Your task to perform on an android device: Open wifi settings Image 0: 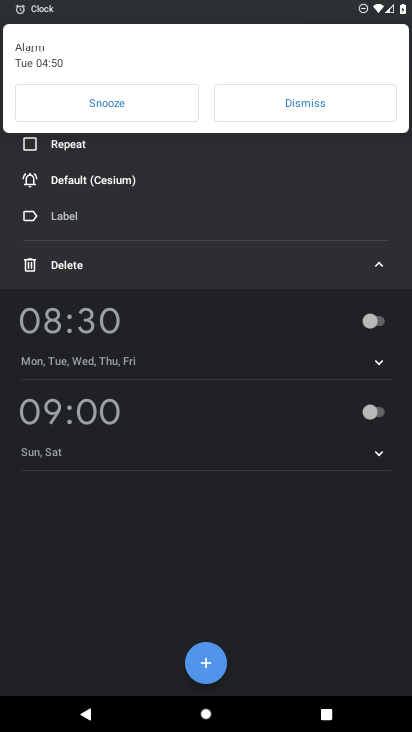
Step 0: click (268, 107)
Your task to perform on an android device: Open wifi settings Image 1: 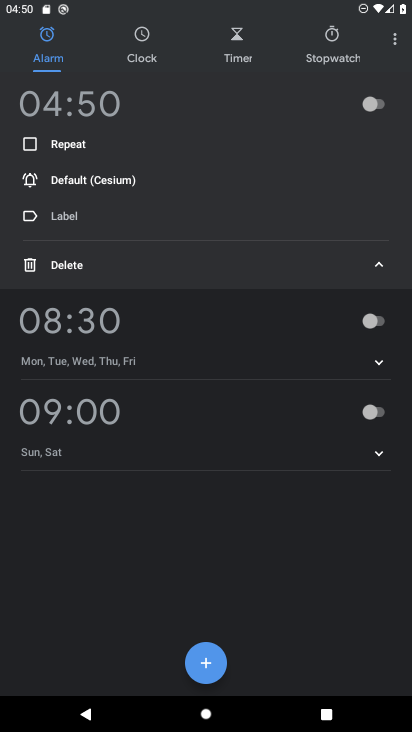
Step 1: press home button
Your task to perform on an android device: Open wifi settings Image 2: 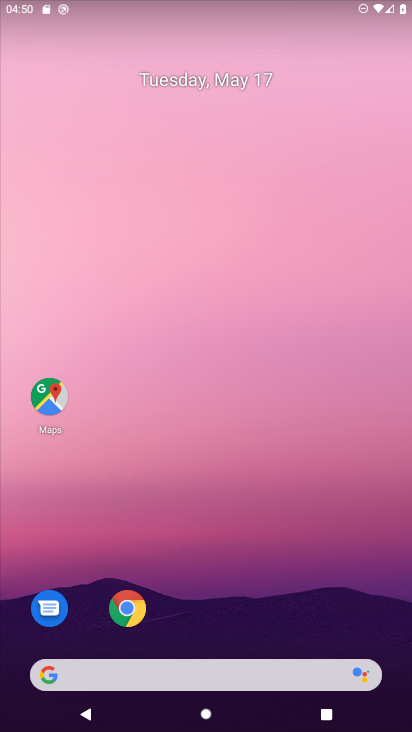
Step 2: drag from (209, 673) to (262, 257)
Your task to perform on an android device: Open wifi settings Image 3: 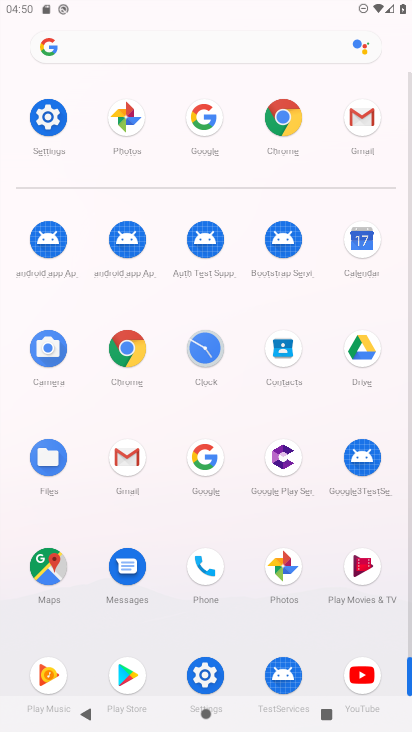
Step 3: click (42, 114)
Your task to perform on an android device: Open wifi settings Image 4: 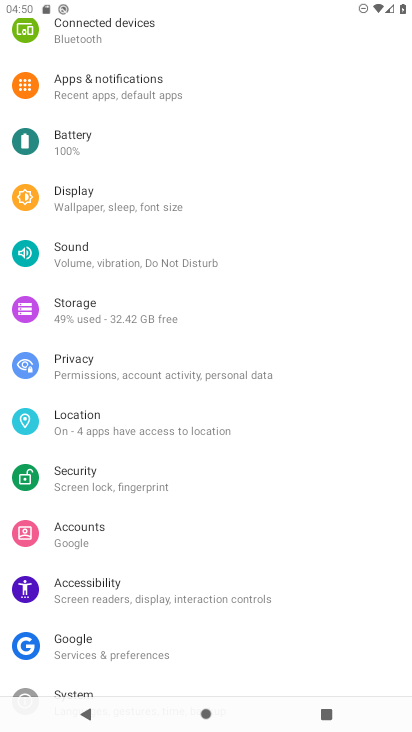
Step 4: drag from (114, 25) to (185, 439)
Your task to perform on an android device: Open wifi settings Image 5: 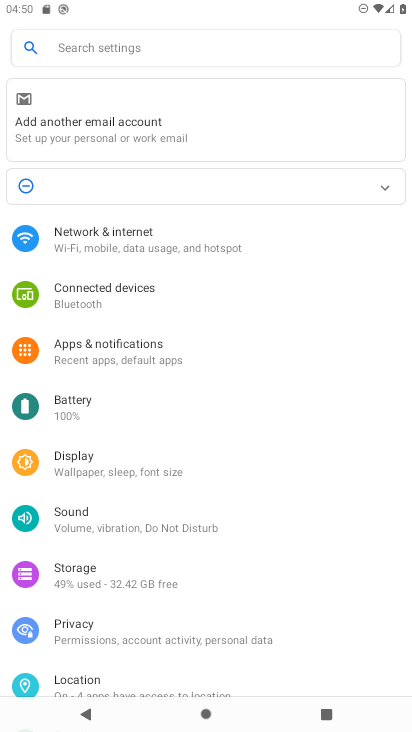
Step 5: click (116, 236)
Your task to perform on an android device: Open wifi settings Image 6: 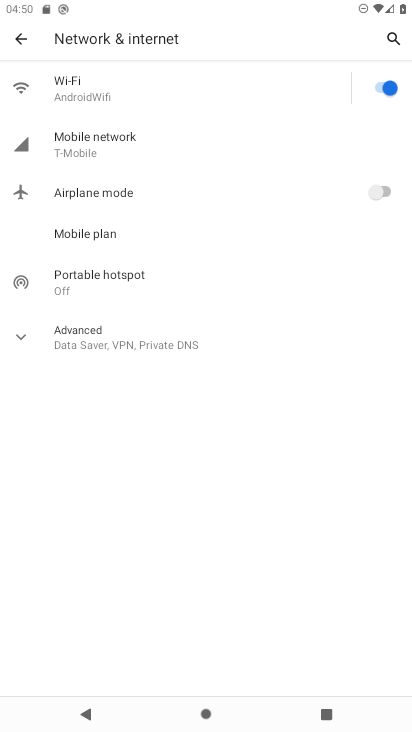
Step 6: click (87, 93)
Your task to perform on an android device: Open wifi settings Image 7: 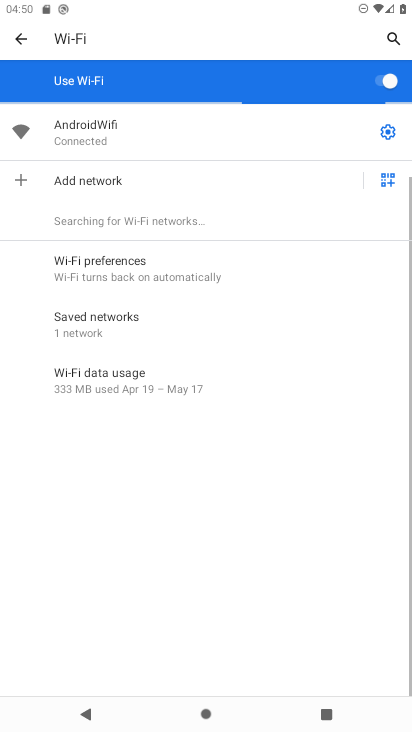
Step 7: click (392, 130)
Your task to perform on an android device: Open wifi settings Image 8: 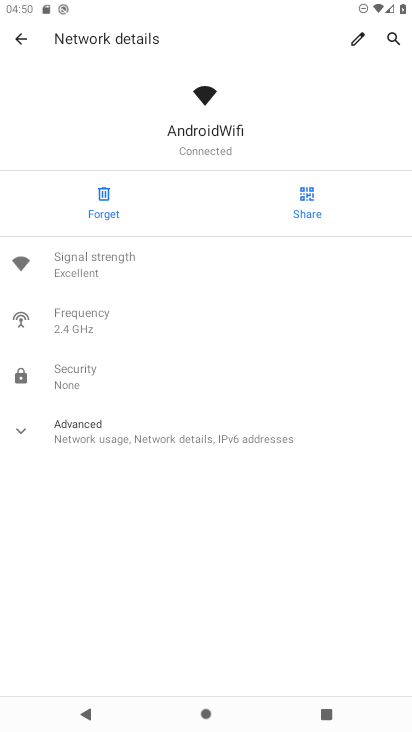
Step 8: click (166, 446)
Your task to perform on an android device: Open wifi settings Image 9: 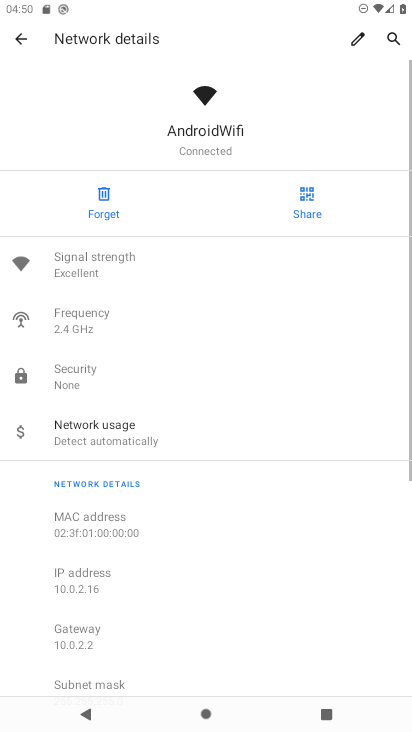
Step 9: task complete